Your task to perform on an android device: move an email to a new category in the gmail app Image 0: 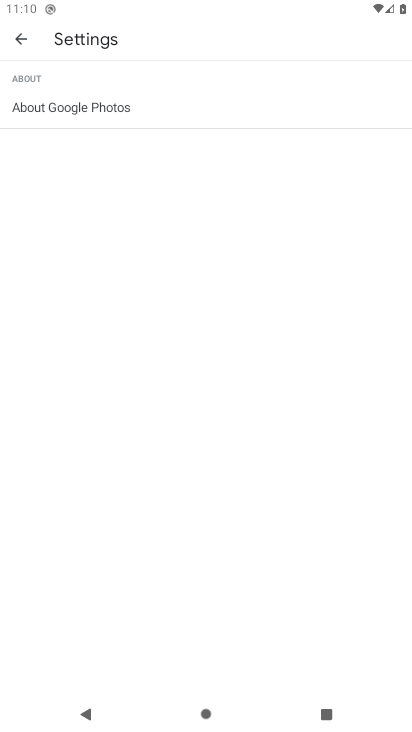
Step 0: press home button
Your task to perform on an android device: move an email to a new category in the gmail app Image 1: 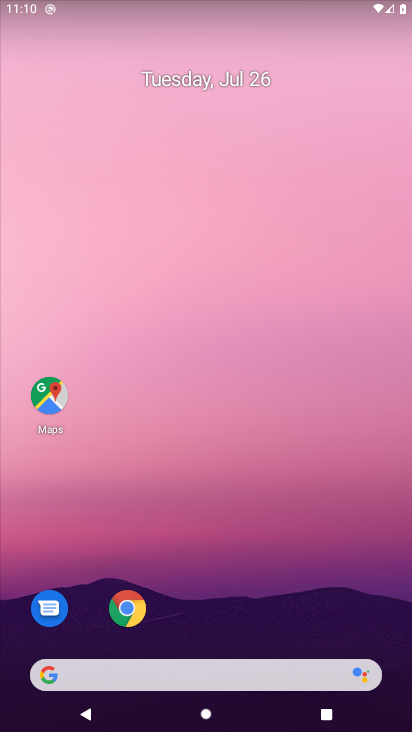
Step 1: drag from (249, 617) to (255, 79)
Your task to perform on an android device: move an email to a new category in the gmail app Image 2: 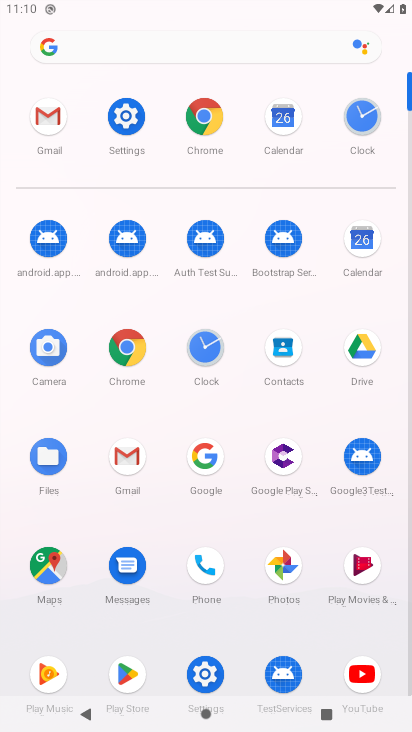
Step 2: click (44, 113)
Your task to perform on an android device: move an email to a new category in the gmail app Image 3: 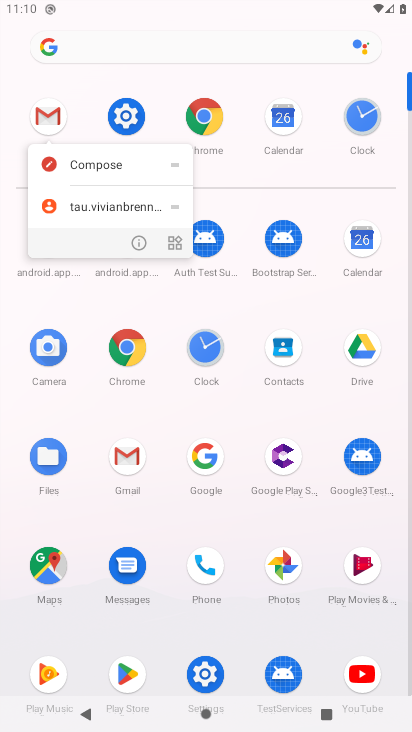
Step 3: click (44, 113)
Your task to perform on an android device: move an email to a new category in the gmail app Image 4: 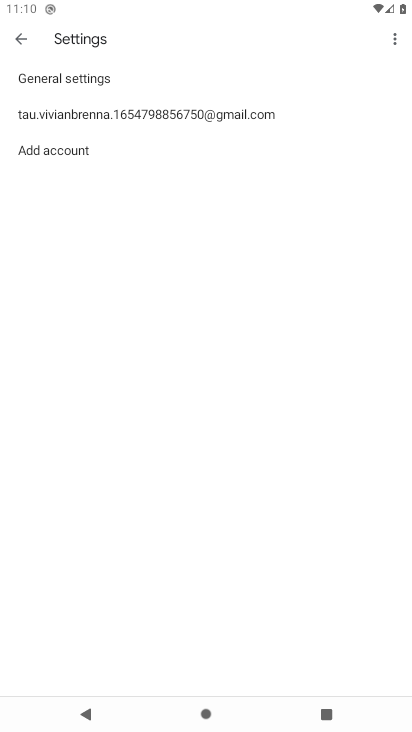
Step 4: click (19, 37)
Your task to perform on an android device: move an email to a new category in the gmail app Image 5: 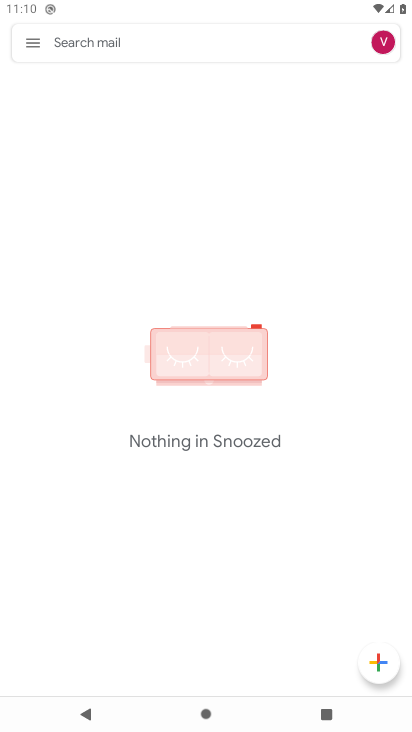
Step 5: click (26, 37)
Your task to perform on an android device: move an email to a new category in the gmail app Image 6: 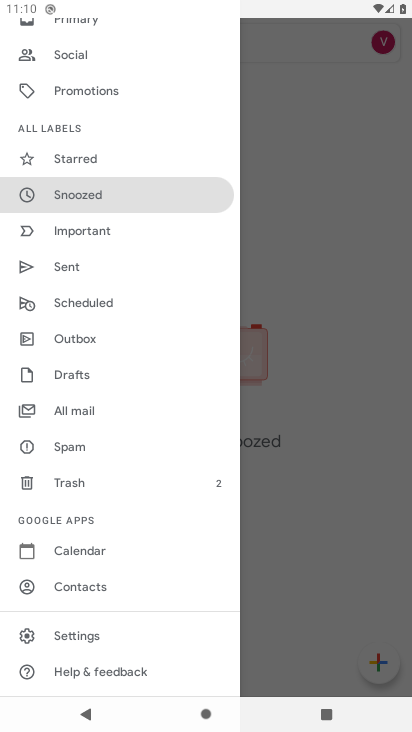
Step 6: click (90, 417)
Your task to perform on an android device: move an email to a new category in the gmail app Image 7: 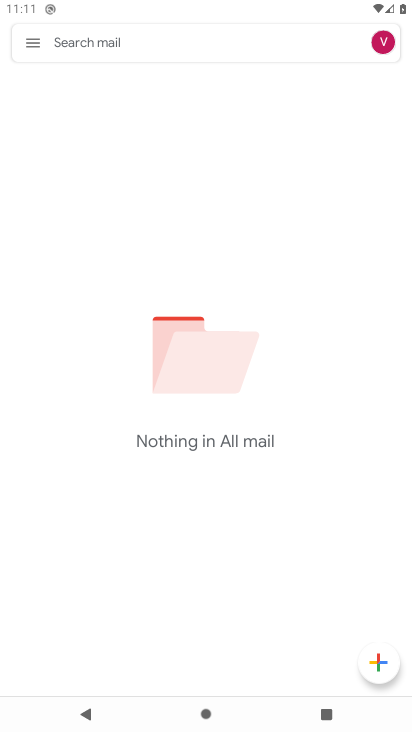
Step 7: task complete